Your task to perform on an android device: Open Android settings Image 0: 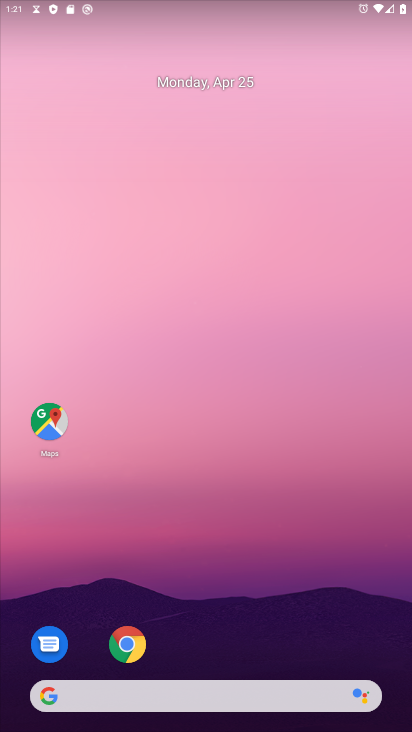
Step 0: drag from (399, 247) to (411, 4)
Your task to perform on an android device: Open Android settings Image 1: 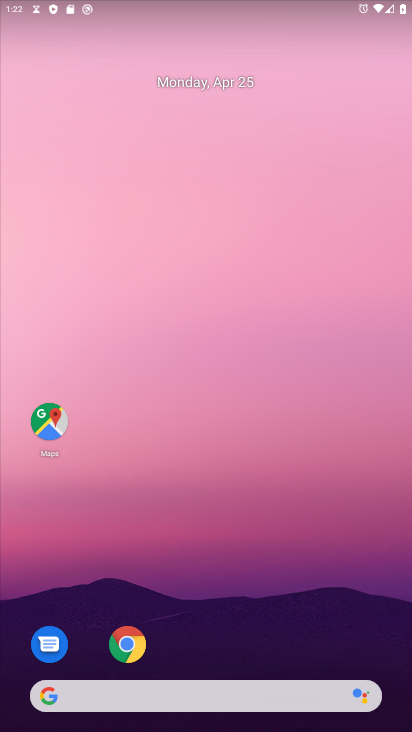
Step 1: drag from (350, 637) to (293, 10)
Your task to perform on an android device: Open Android settings Image 2: 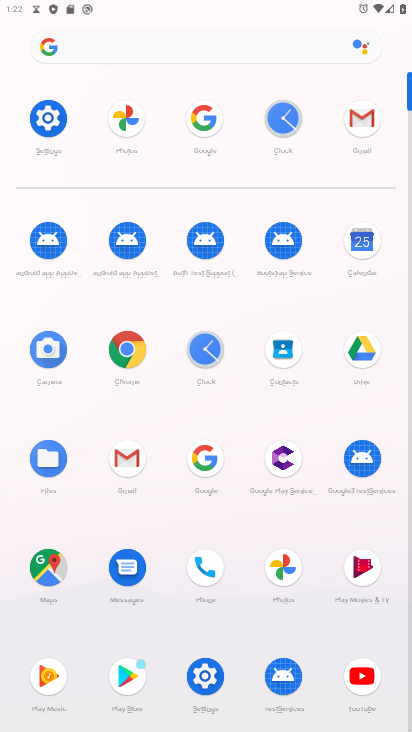
Step 2: click (44, 135)
Your task to perform on an android device: Open Android settings Image 3: 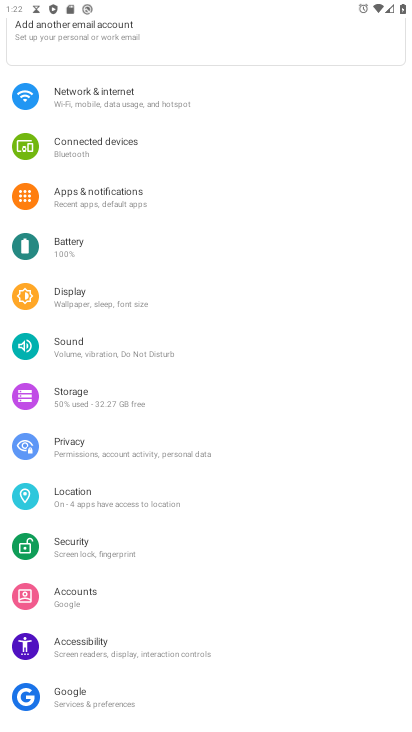
Step 3: task complete